Your task to perform on an android device: turn on location history Image 0: 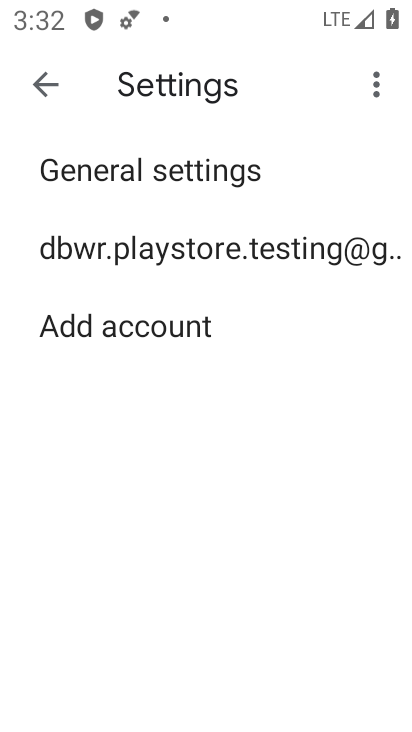
Step 0: press home button
Your task to perform on an android device: turn on location history Image 1: 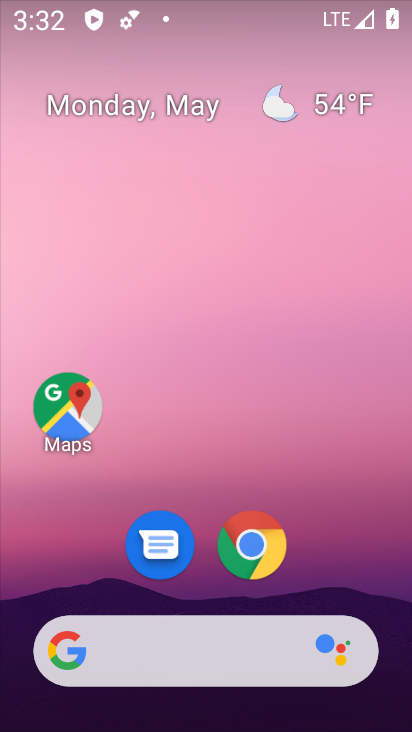
Step 1: click (394, 641)
Your task to perform on an android device: turn on location history Image 2: 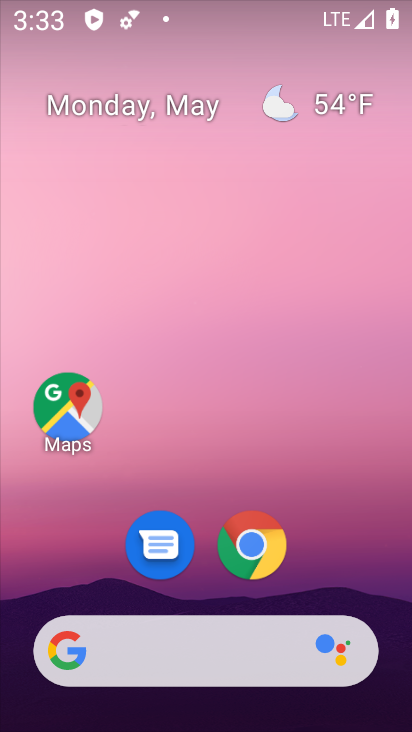
Step 2: click (67, 411)
Your task to perform on an android device: turn on location history Image 3: 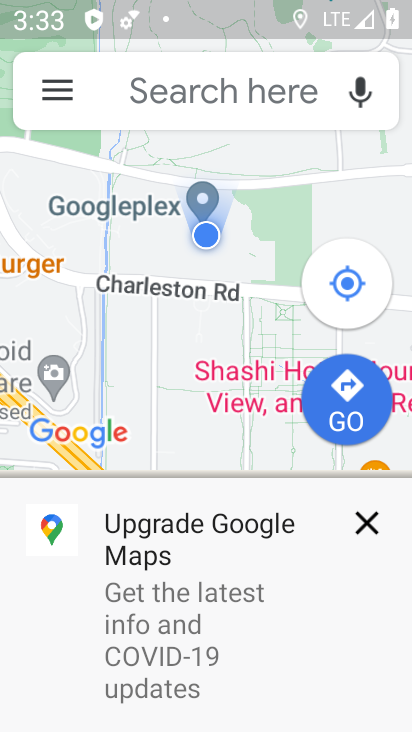
Step 3: click (63, 95)
Your task to perform on an android device: turn on location history Image 4: 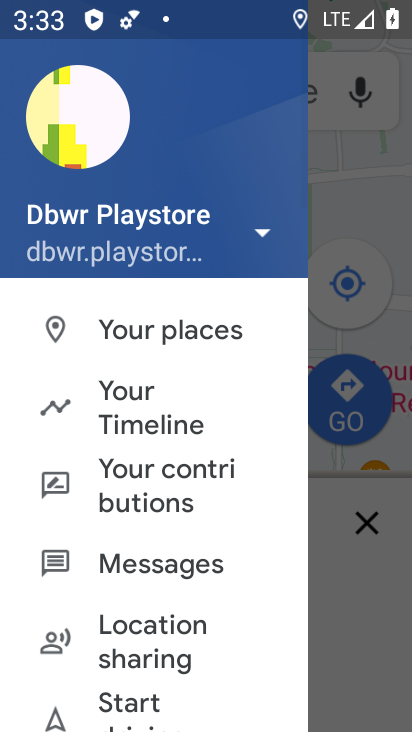
Step 4: drag from (239, 669) to (279, 115)
Your task to perform on an android device: turn on location history Image 5: 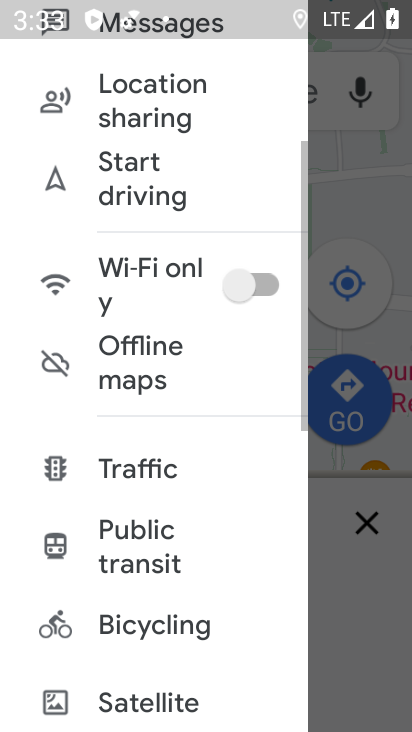
Step 5: drag from (238, 647) to (218, 156)
Your task to perform on an android device: turn on location history Image 6: 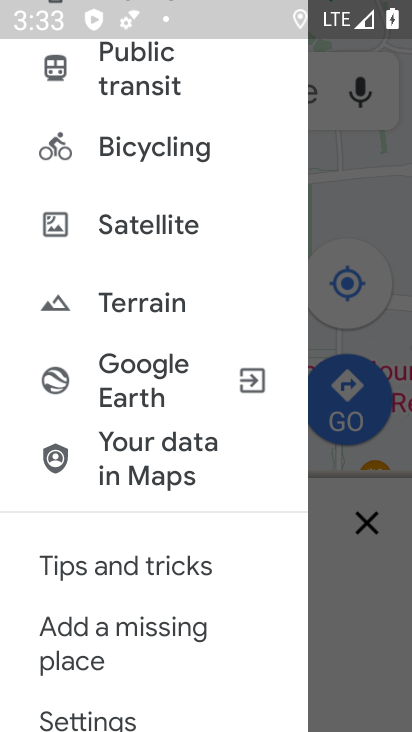
Step 6: drag from (260, 683) to (236, 206)
Your task to perform on an android device: turn on location history Image 7: 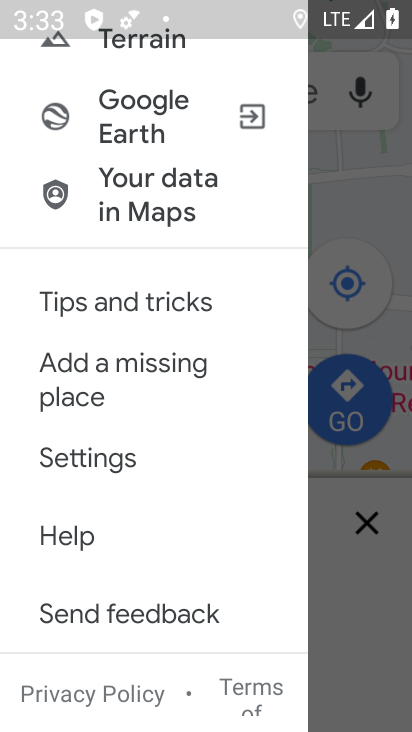
Step 7: click (90, 464)
Your task to perform on an android device: turn on location history Image 8: 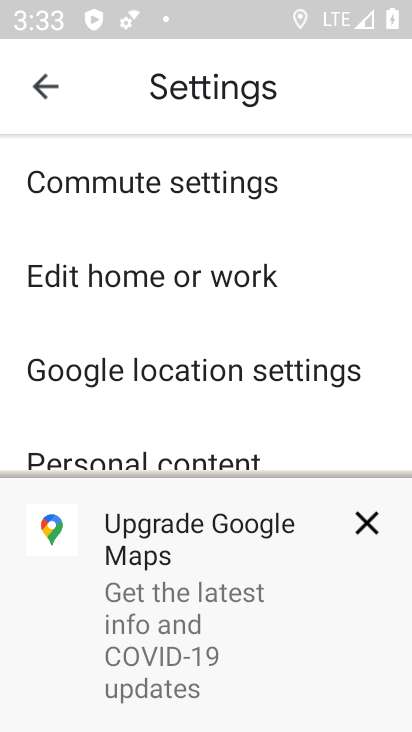
Step 8: click (364, 519)
Your task to perform on an android device: turn on location history Image 9: 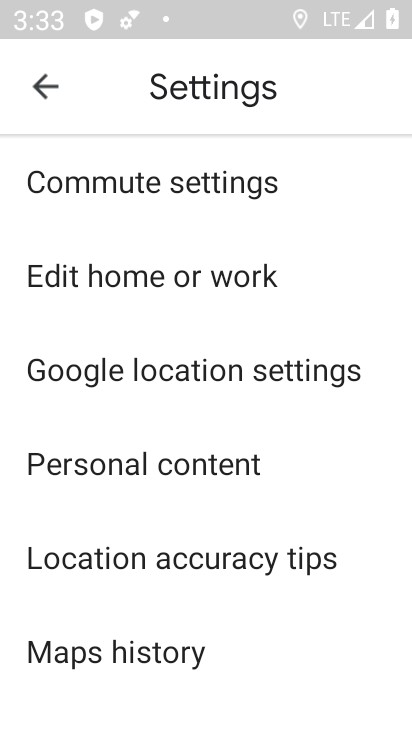
Step 9: click (140, 461)
Your task to perform on an android device: turn on location history Image 10: 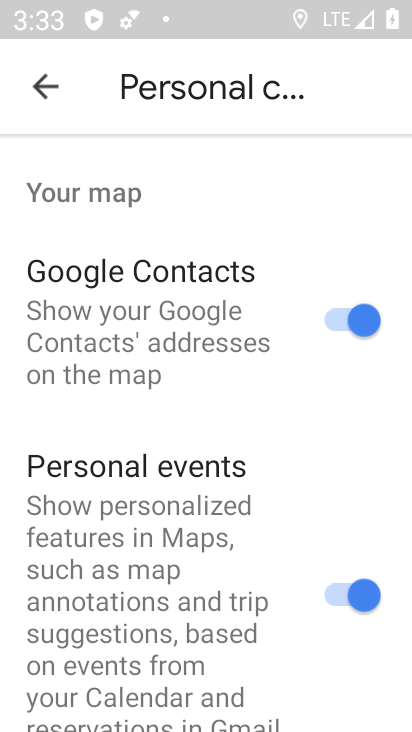
Step 10: task complete